Your task to perform on an android device: Go to ESPN.com Image 0: 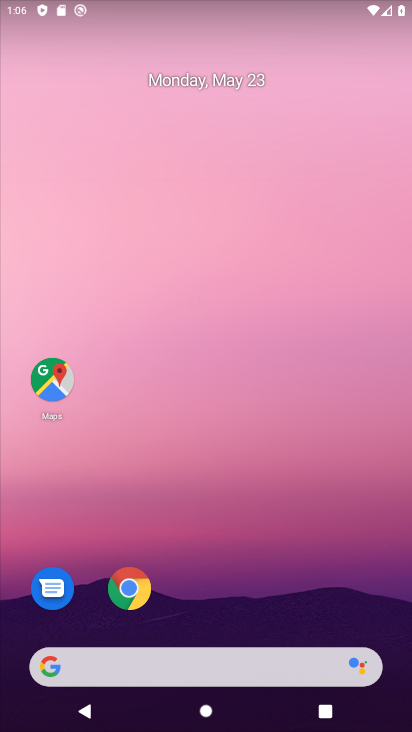
Step 0: click (118, 593)
Your task to perform on an android device: Go to ESPN.com Image 1: 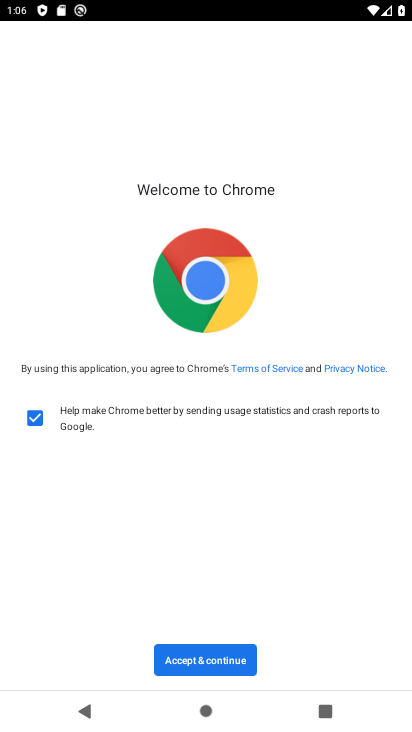
Step 1: click (224, 656)
Your task to perform on an android device: Go to ESPN.com Image 2: 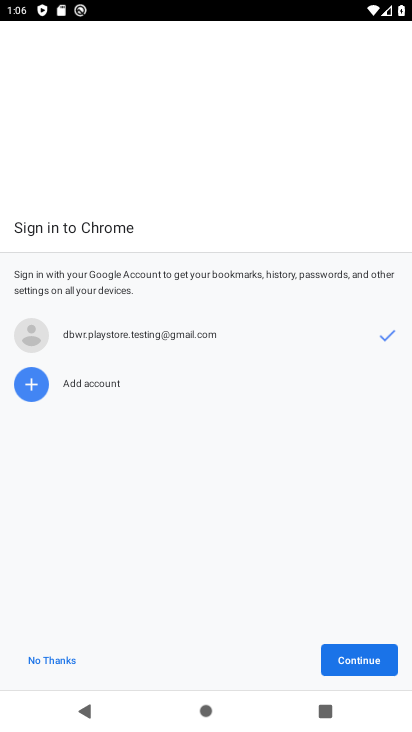
Step 2: click (365, 666)
Your task to perform on an android device: Go to ESPN.com Image 3: 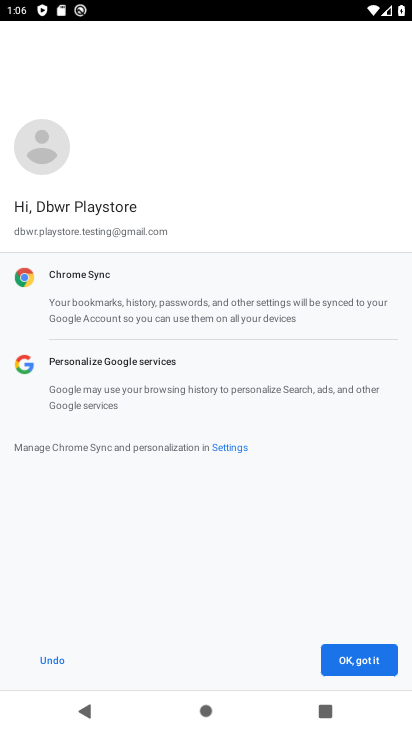
Step 3: click (365, 666)
Your task to perform on an android device: Go to ESPN.com Image 4: 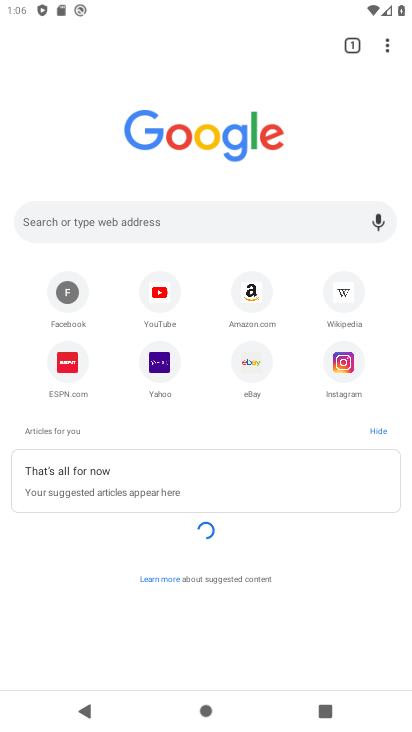
Step 4: click (76, 361)
Your task to perform on an android device: Go to ESPN.com Image 5: 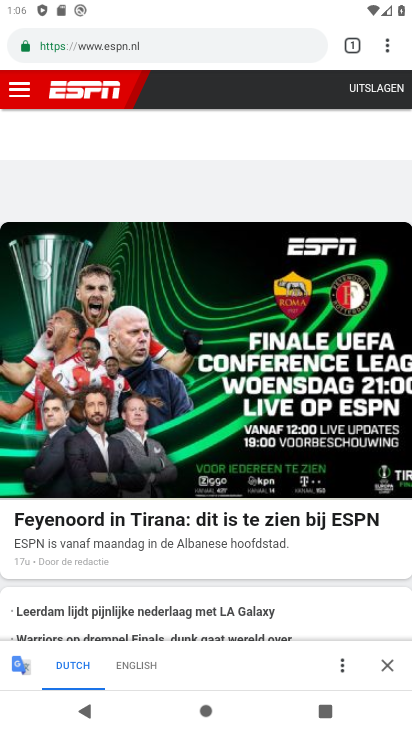
Step 5: task complete